Your task to perform on an android device: What's on my calendar today? Image 0: 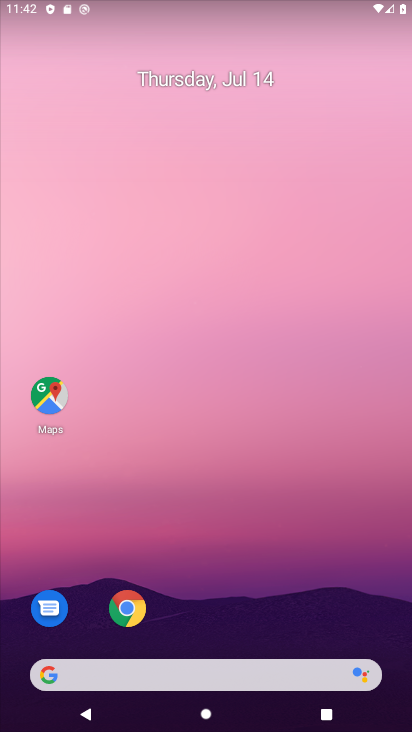
Step 0: drag from (183, 603) to (230, 19)
Your task to perform on an android device: What's on my calendar today? Image 1: 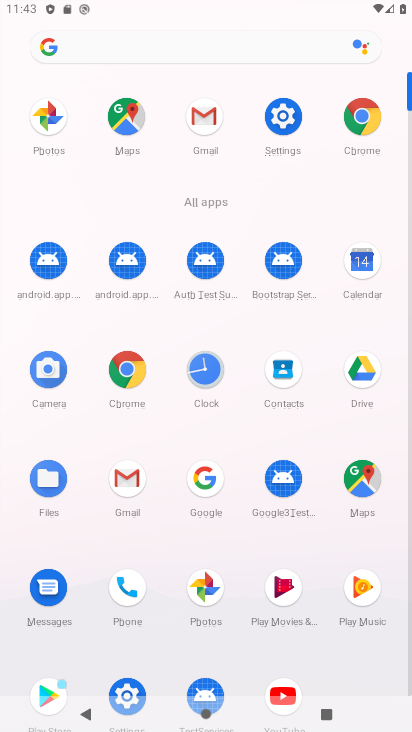
Step 1: click (284, 115)
Your task to perform on an android device: What's on my calendar today? Image 2: 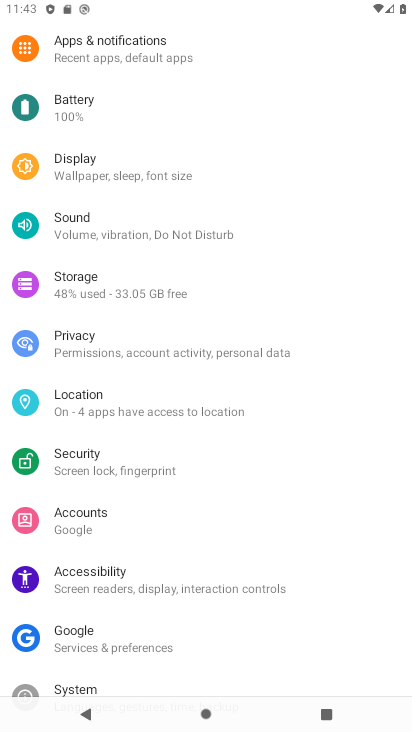
Step 2: task complete